Your task to perform on an android device: Open Chrome and go to the settings page Image 0: 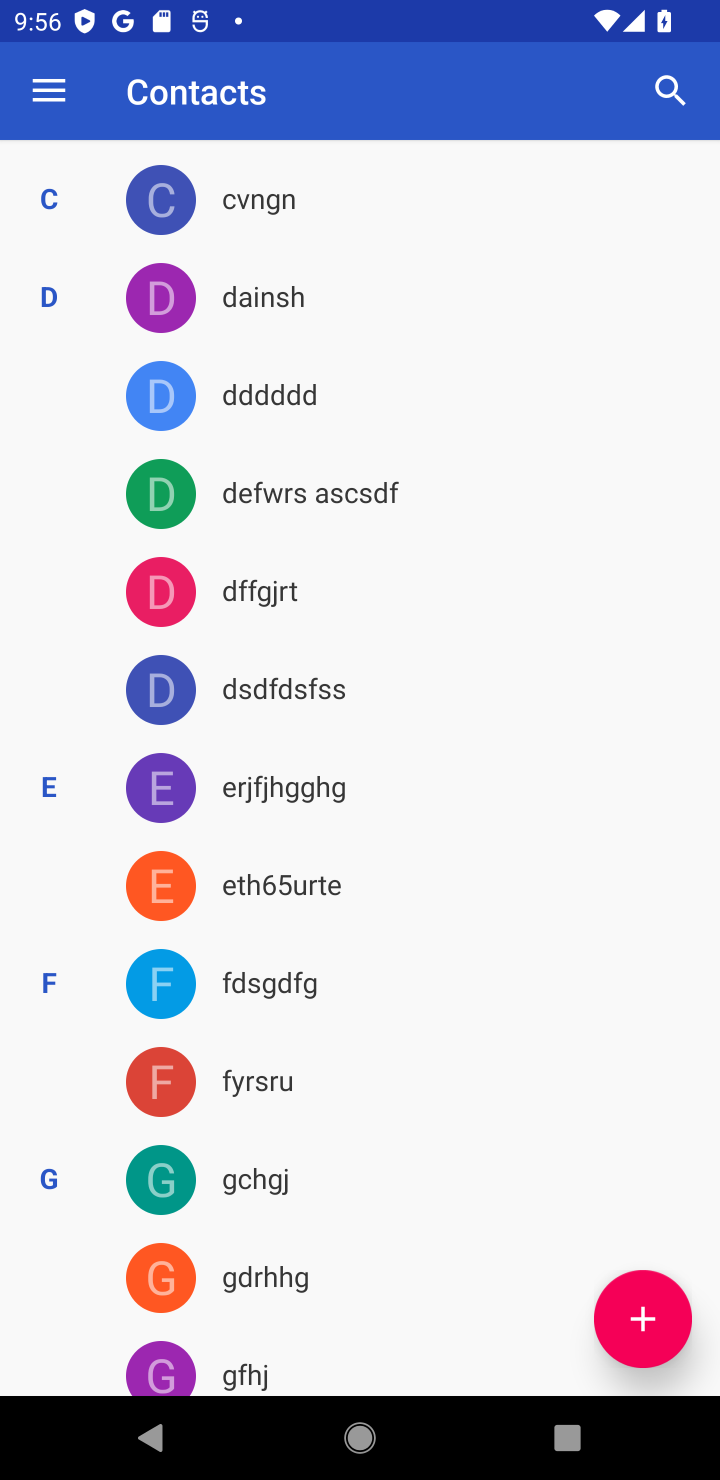
Step 0: press home button
Your task to perform on an android device: Open Chrome and go to the settings page Image 1: 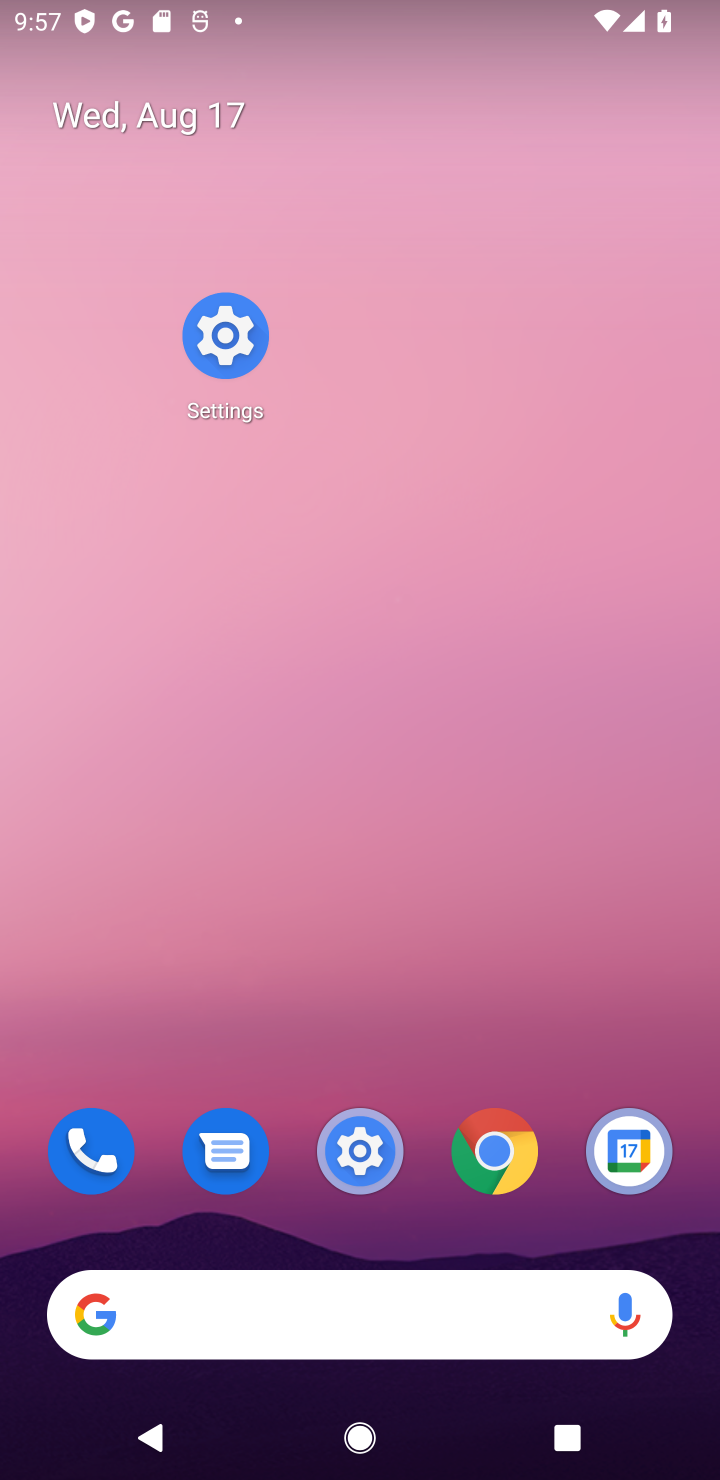
Step 1: click (483, 1150)
Your task to perform on an android device: Open Chrome and go to the settings page Image 2: 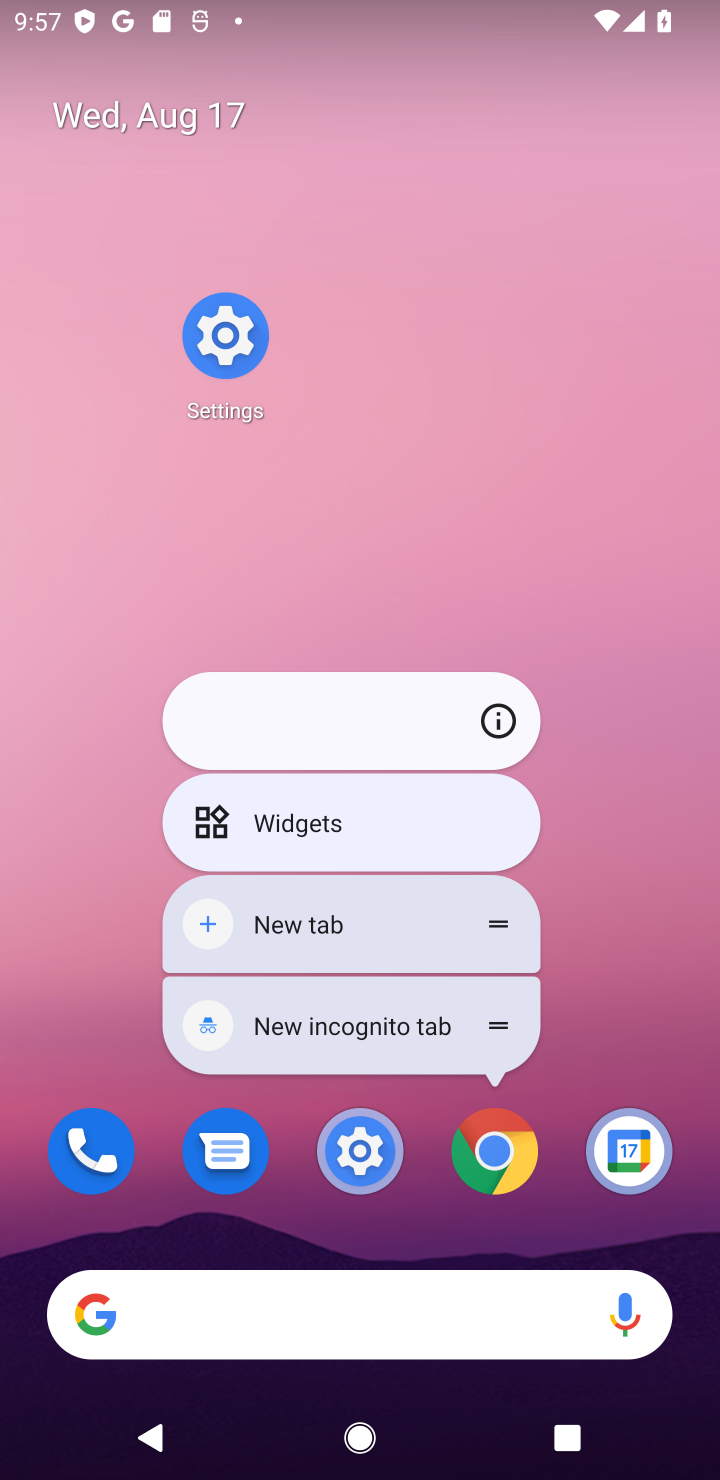
Step 2: click (484, 1158)
Your task to perform on an android device: Open Chrome and go to the settings page Image 3: 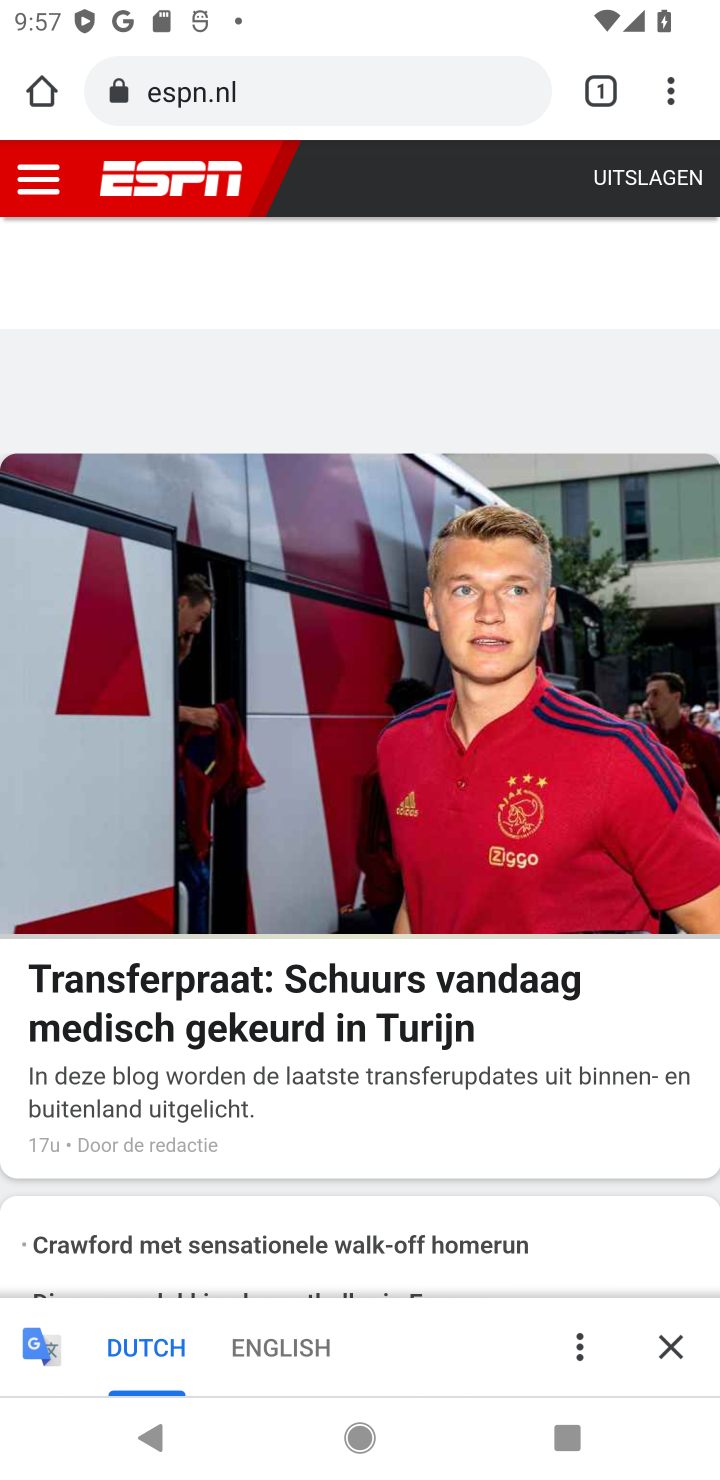
Step 3: click (671, 85)
Your task to perform on an android device: Open Chrome and go to the settings page Image 4: 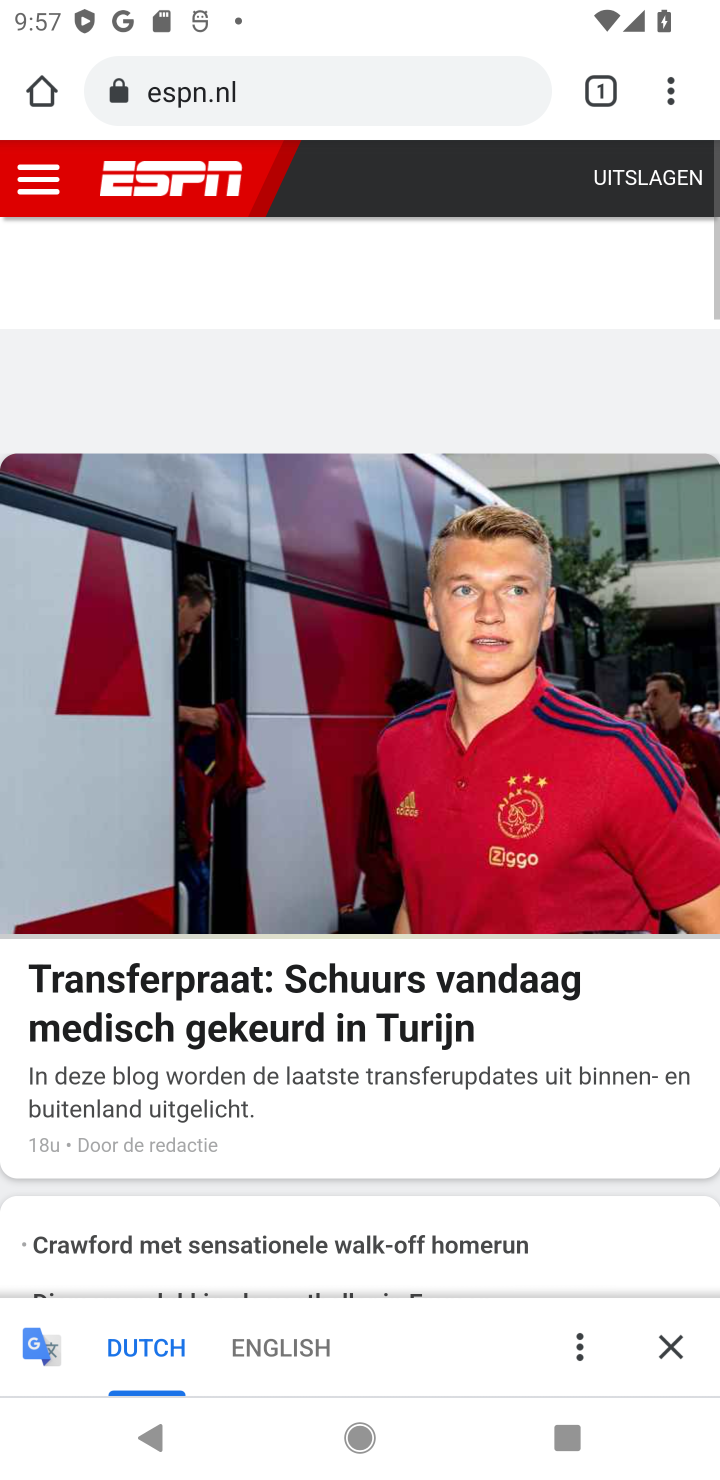
Step 4: click (670, 103)
Your task to perform on an android device: Open Chrome and go to the settings page Image 5: 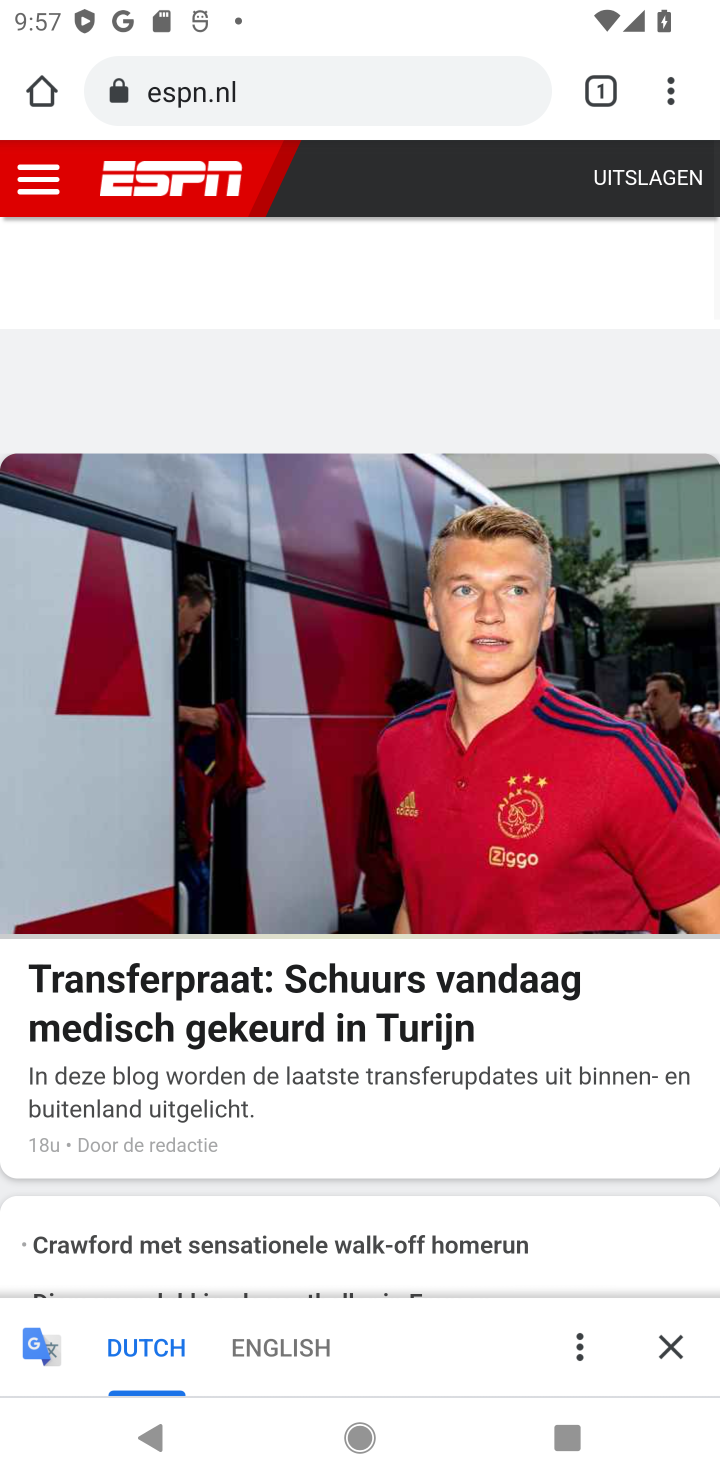
Step 5: click (670, 103)
Your task to perform on an android device: Open Chrome and go to the settings page Image 6: 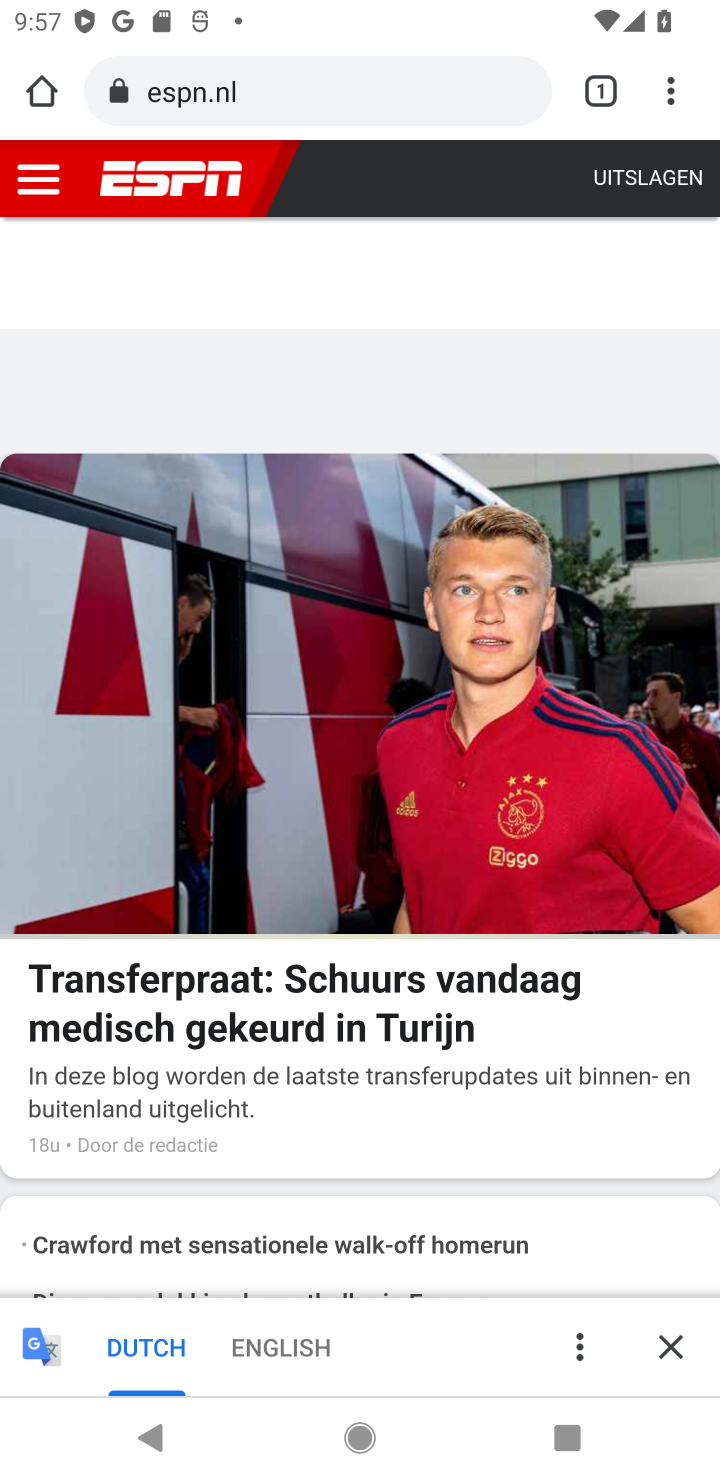
Step 6: task complete